Your task to perform on an android device: Search for the new Nintendo switch on Best Buy Image 0: 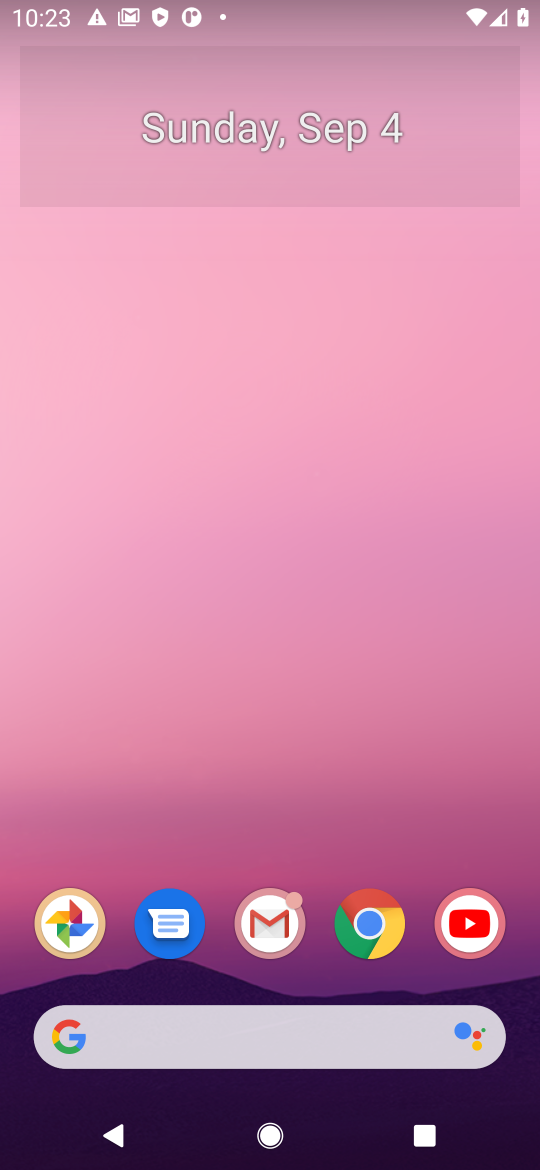
Step 0: press home button
Your task to perform on an android device: Search for the new Nintendo switch on Best Buy Image 1: 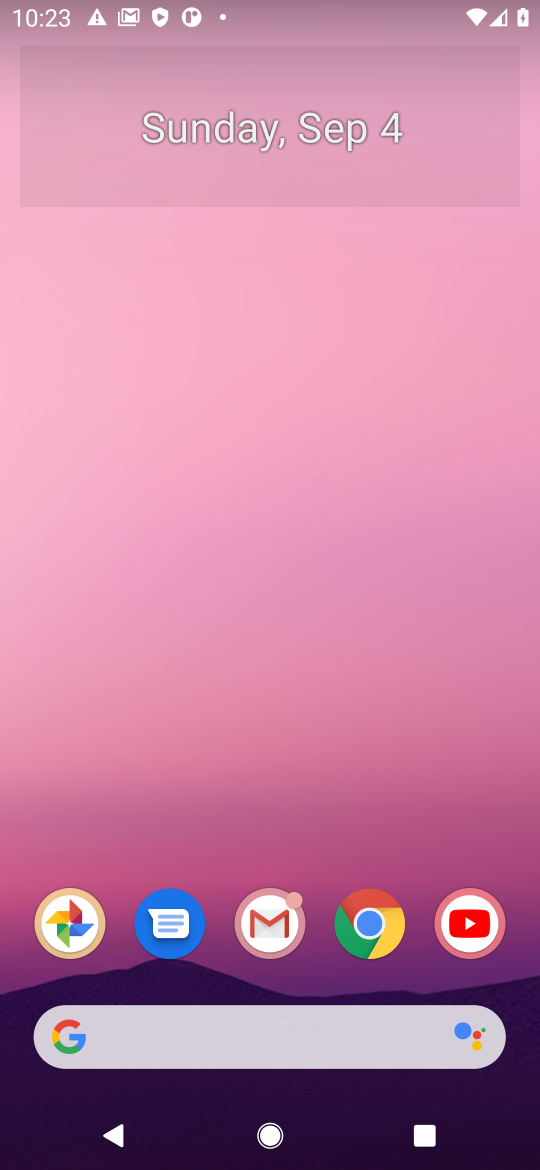
Step 1: click (339, 1034)
Your task to perform on an android device: Search for the new Nintendo switch on Best Buy Image 2: 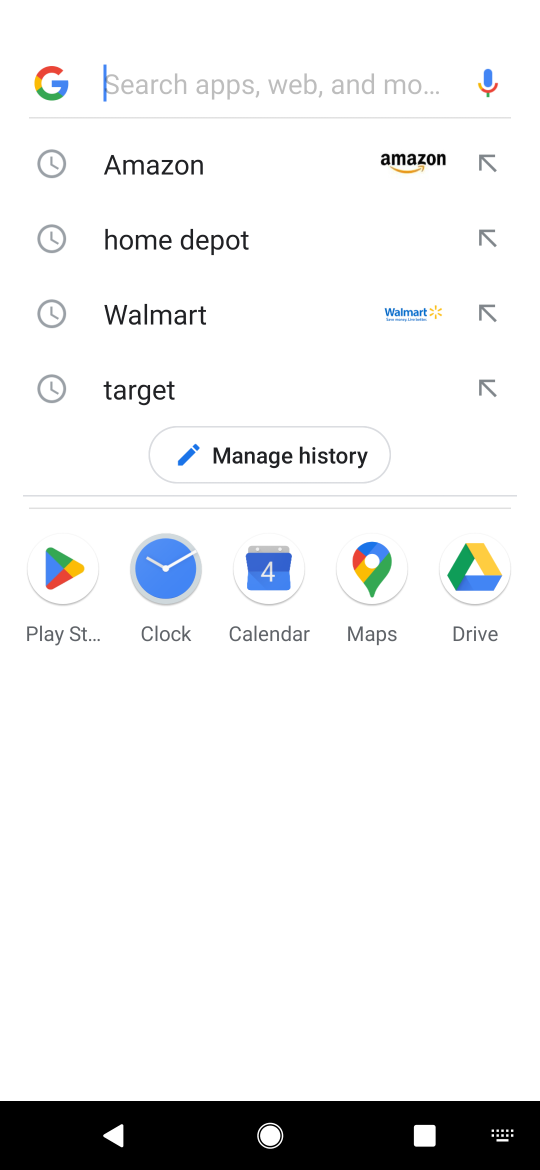
Step 2: press enter
Your task to perform on an android device: Search for the new Nintendo switch on Best Buy Image 3: 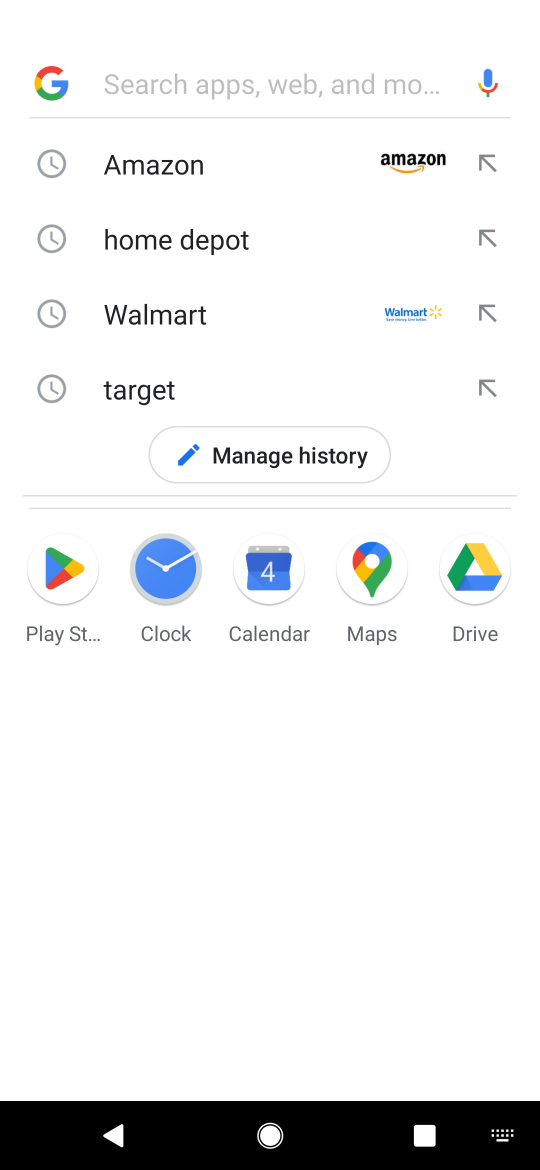
Step 3: type "best buy"
Your task to perform on an android device: Search for the new Nintendo switch on Best Buy Image 4: 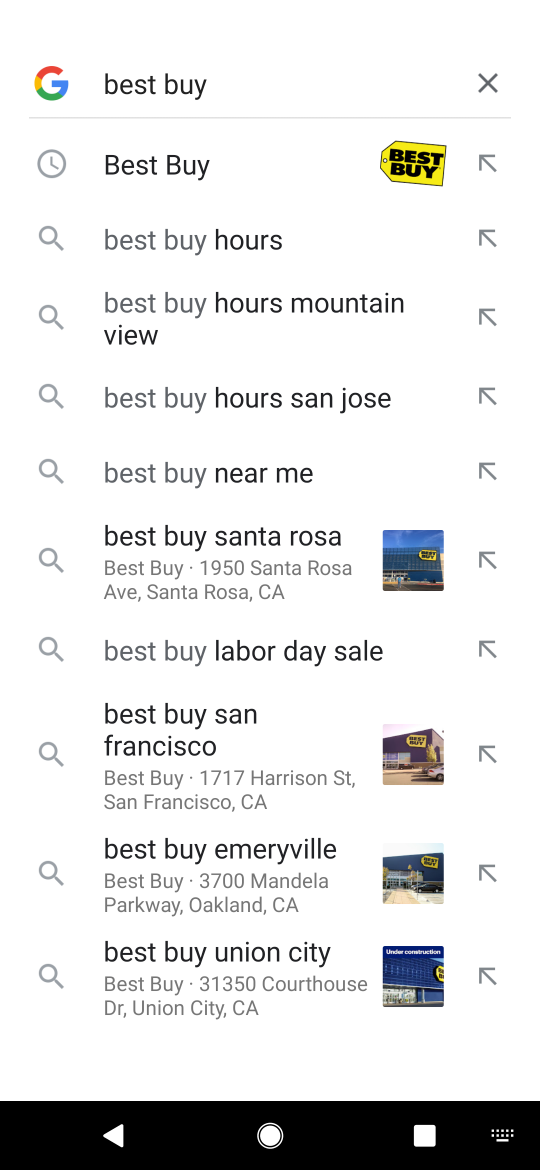
Step 4: click (191, 162)
Your task to perform on an android device: Search for the new Nintendo switch on Best Buy Image 5: 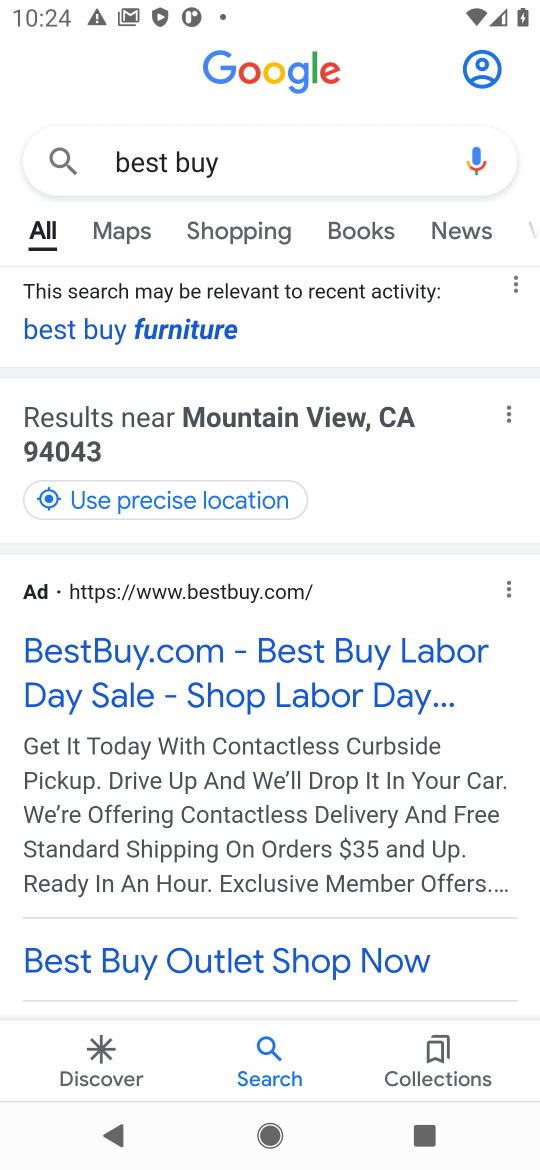
Step 5: click (302, 670)
Your task to perform on an android device: Search for the new Nintendo switch on Best Buy Image 6: 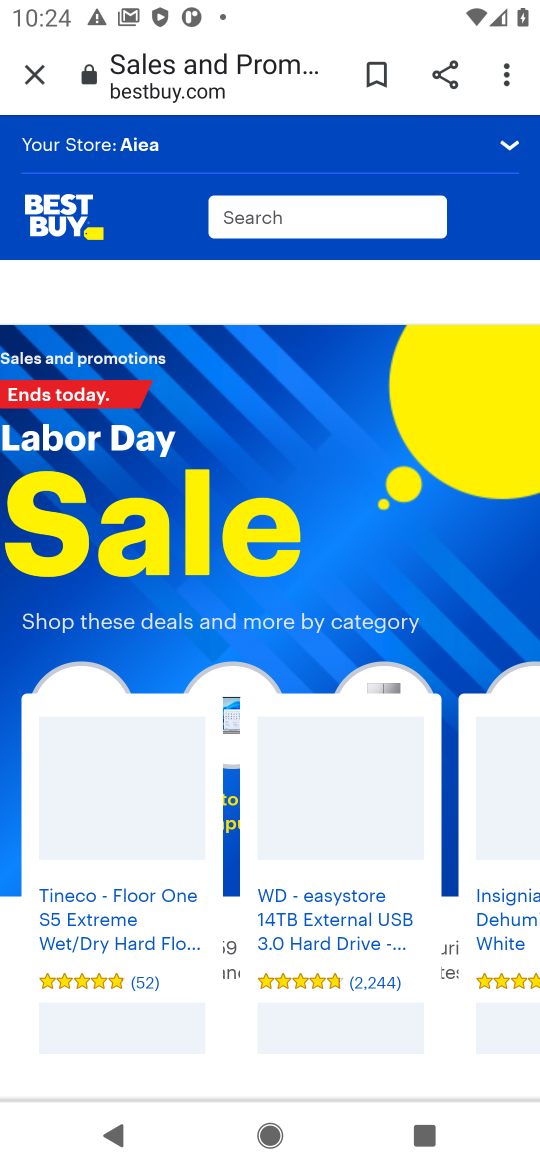
Step 6: click (285, 218)
Your task to perform on an android device: Search for the new Nintendo switch on Best Buy Image 7: 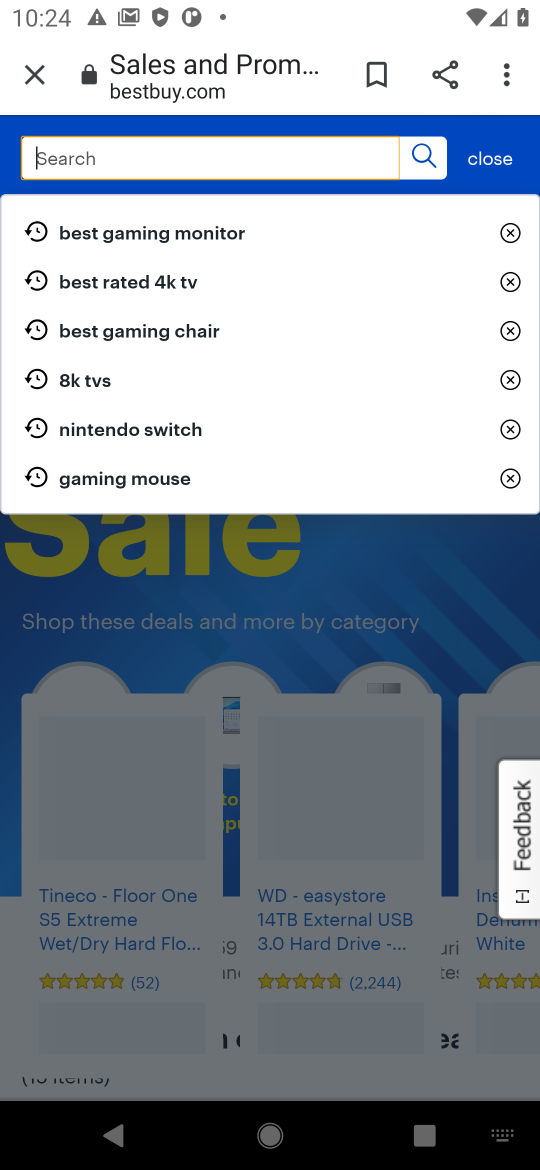
Step 7: press enter
Your task to perform on an android device: Search for the new Nintendo switch on Best Buy Image 8: 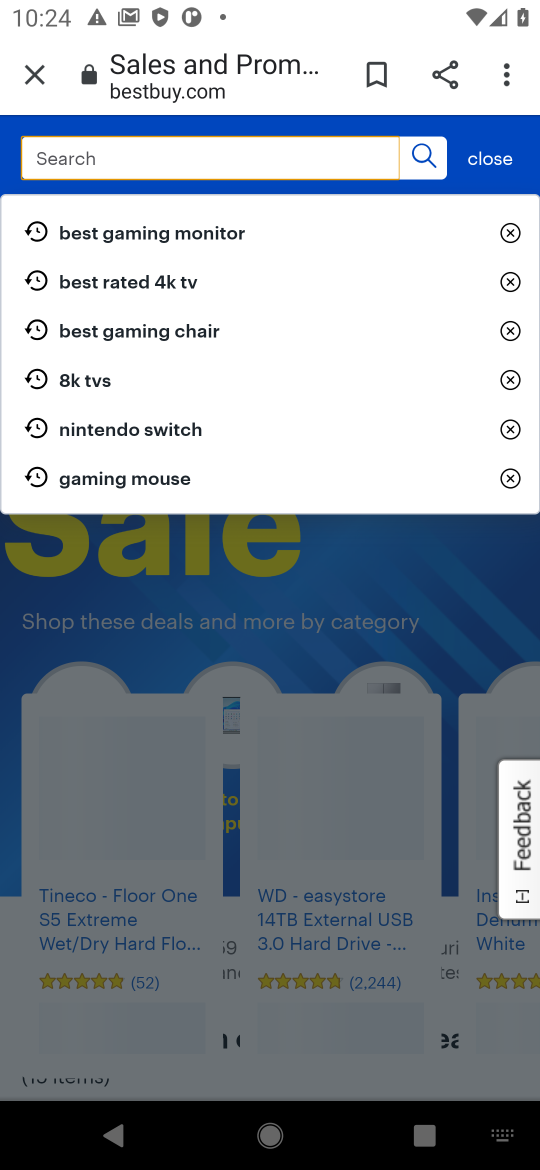
Step 8: type "new nintendo switch"
Your task to perform on an android device: Search for the new Nintendo switch on Best Buy Image 9: 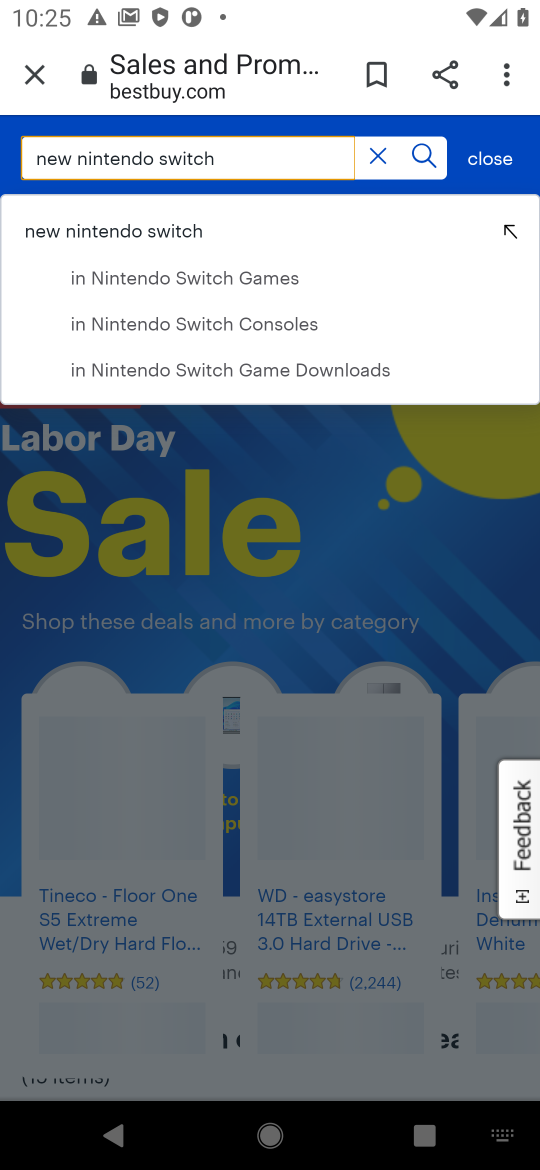
Step 9: click (426, 152)
Your task to perform on an android device: Search for the new Nintendo switch on Best Buy Image 10: 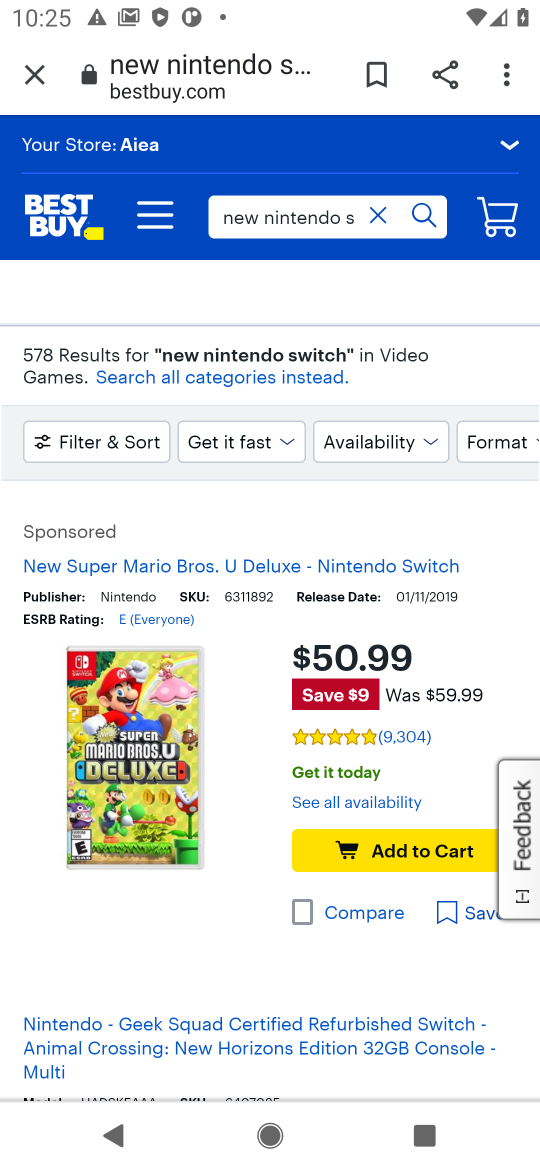
Step 10: task complete